Your task to perform on an android device: change timer sound Image 0: 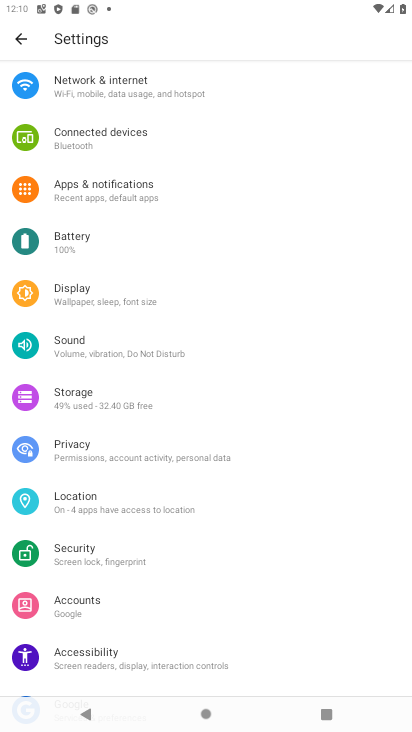
Step 0: press home button
Your task to perform on an android device: change timer sound Image 1: 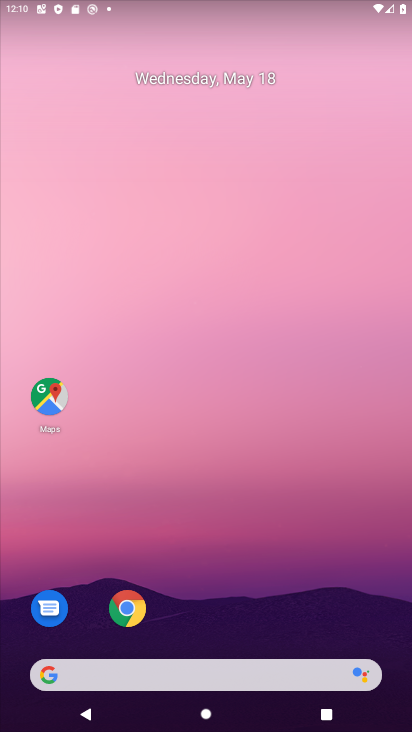
Step 1: drag from (271, 719) to (283, 47)
Your task to perform on an android device: change timer sound Image 2: 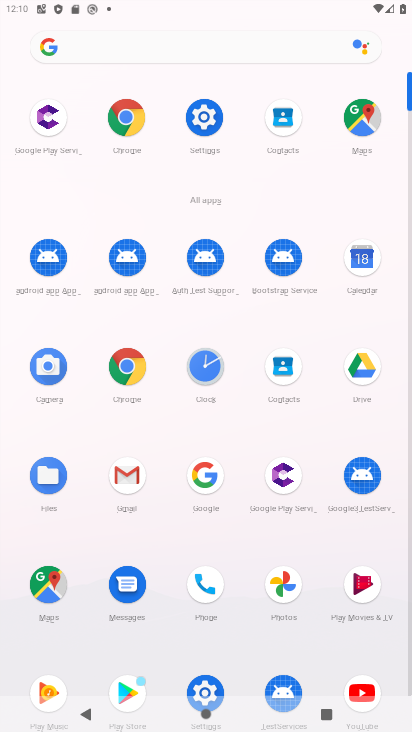
Step 2: click (210, 369)
Your task to perform on an android device: change timer sound Image 3: 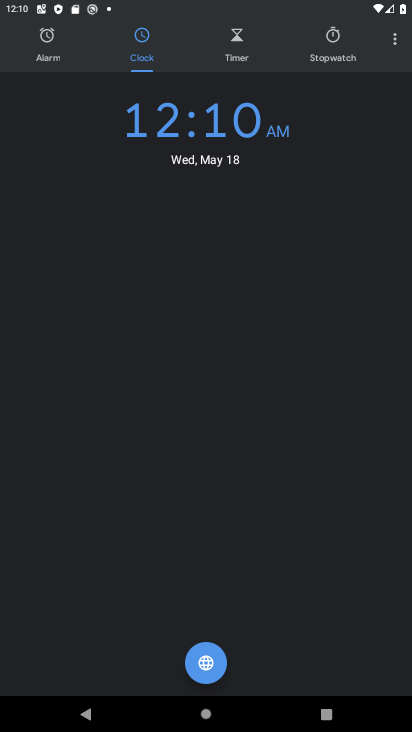
Step 3: click (393, 39)
Your task to perform on an android device: change timer sound Image 4: 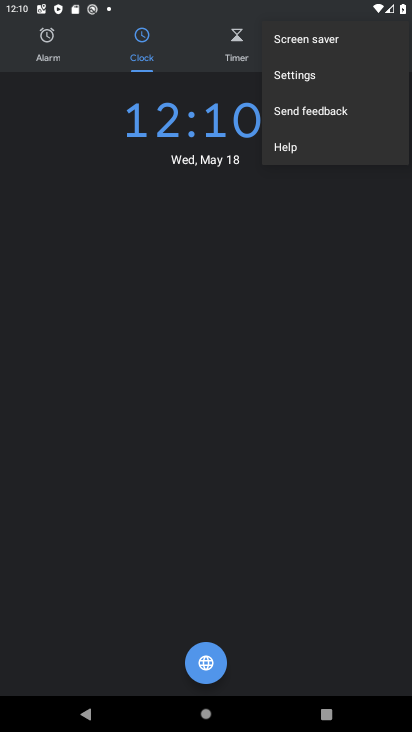
Step 4: click (304, 75)
Your task to perform on an android device: change timer sound Image 5: 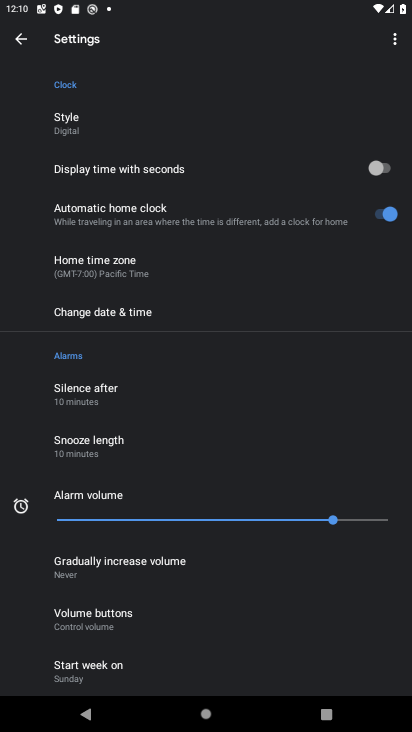
Step 5: drag from (224, 629) to (251, 172)
Your task to perform on an android device: change timer sound Image 6: 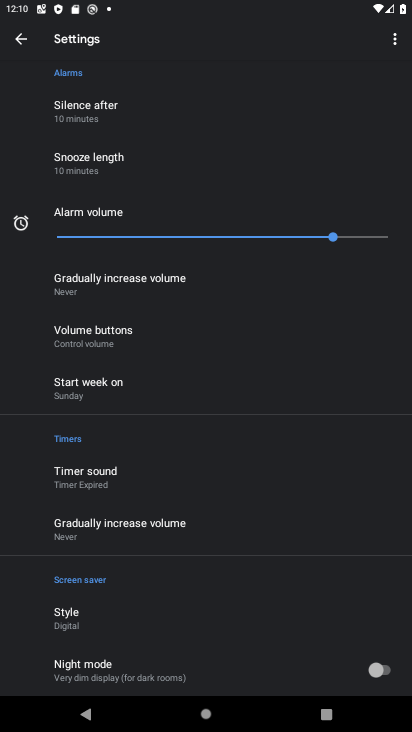
Step 6: click (130, 478)
Your task to perform on an android device: change timer sound Image 7: 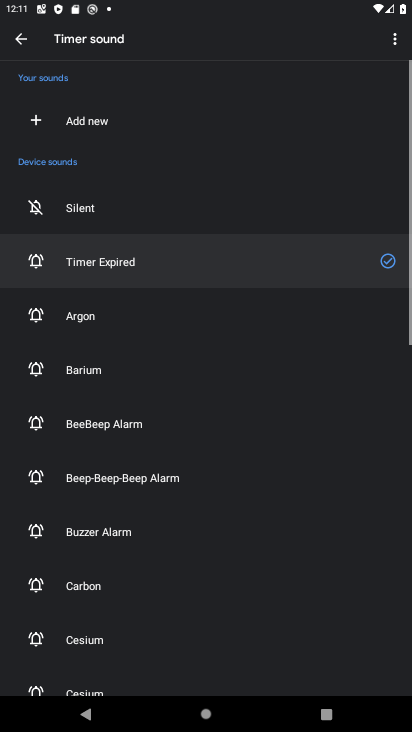
Step 7: click (162, 544)
Your task to perform on an android device: change timer sound Image 8: 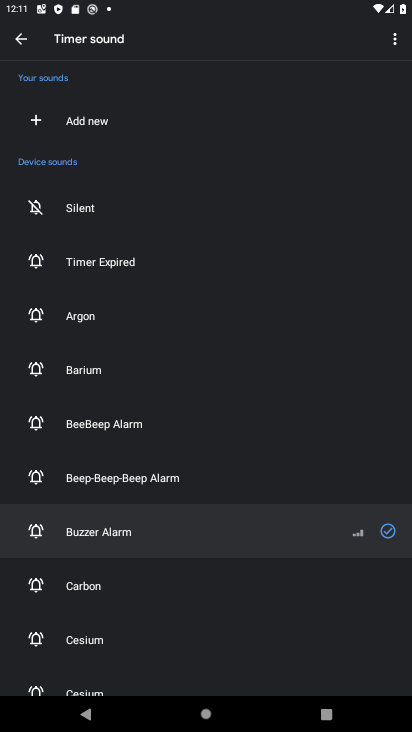
Step 8: task complete